Your task to perform on an android device: open app "Paramount+ | Peak Streaming" (install if not already installed) Image 0: 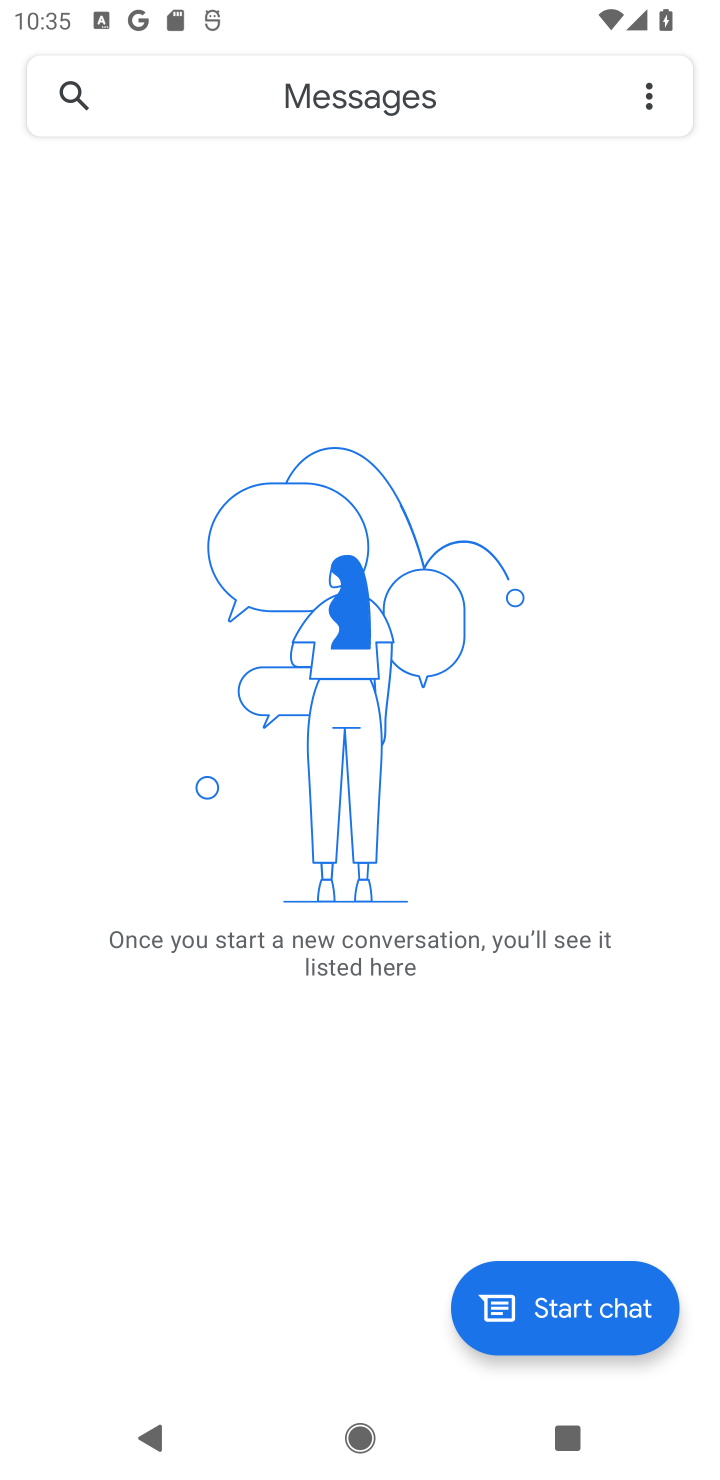
Step 0: drag from (569, 74) to (50, 80)
Your task to perform on an android device: open app "Paramount+ | Peak Streaming" (install if not already installed) Image 1: 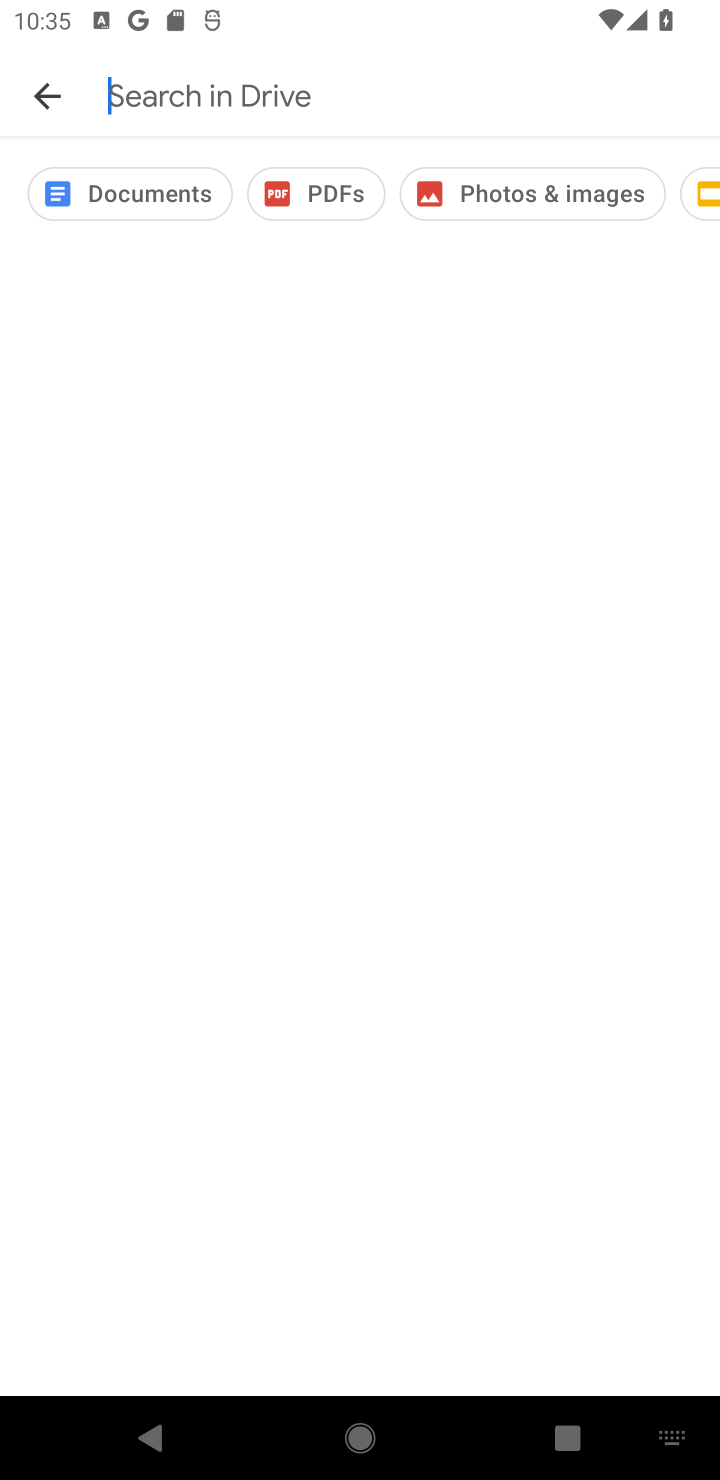
Step 1: press back button
Your task to perform on an android device: open app "Paramount+ | Peak Streaming" (install if not already installed) Image 2: 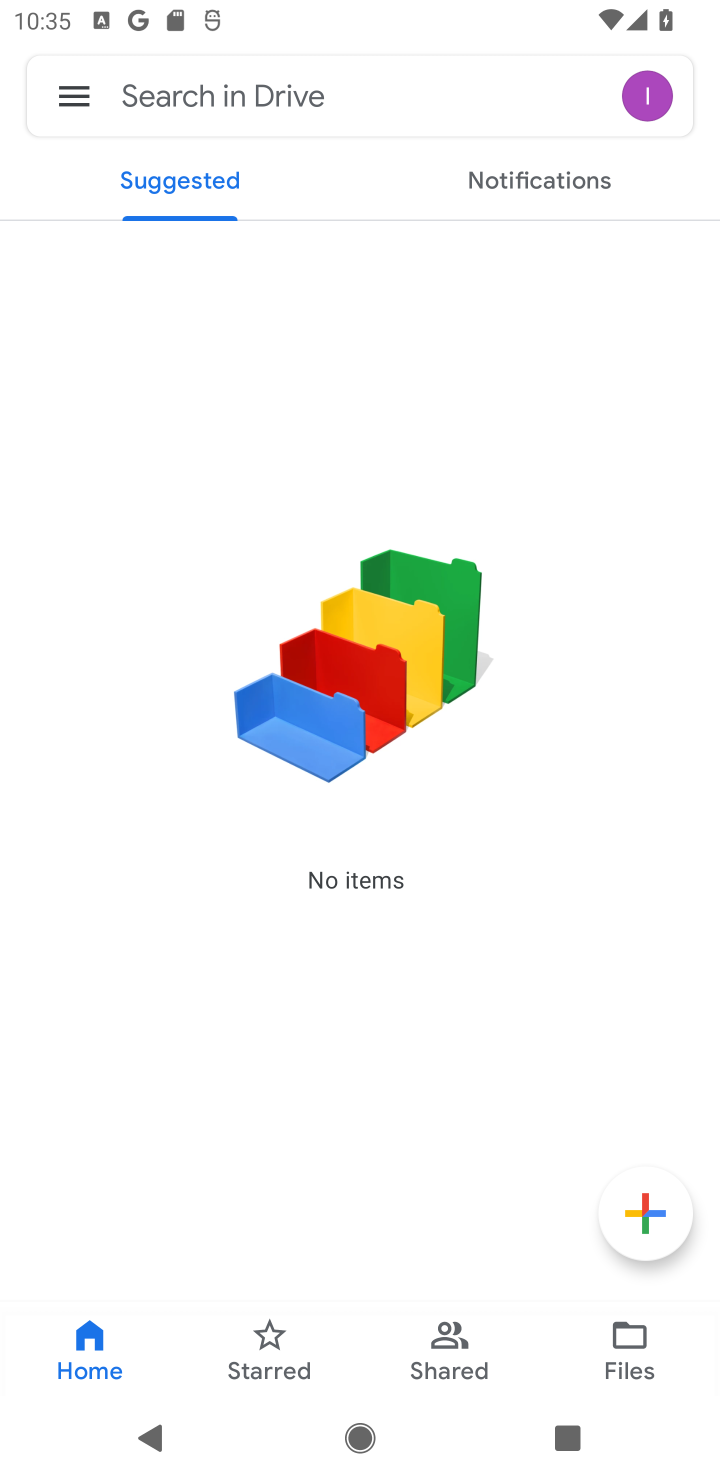
Step 2: press back button
Your task to perform on an android device: open app "Paramount+ | Peak Streaming" (install if not already installed) Image 3: 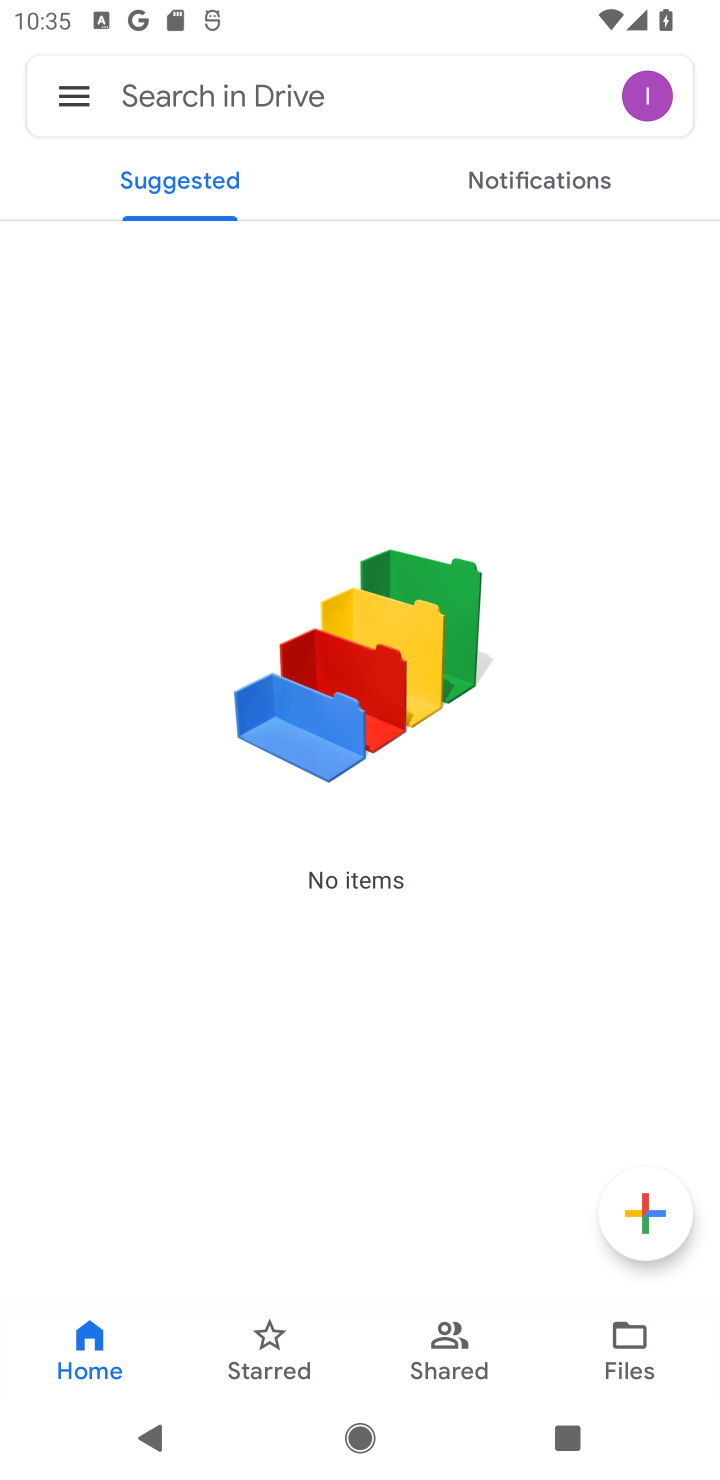
Step 3: press back button
Your task to perform on an android device: open app "Paramount+ | Peak Streaming" (install if not already installed) Image 4: 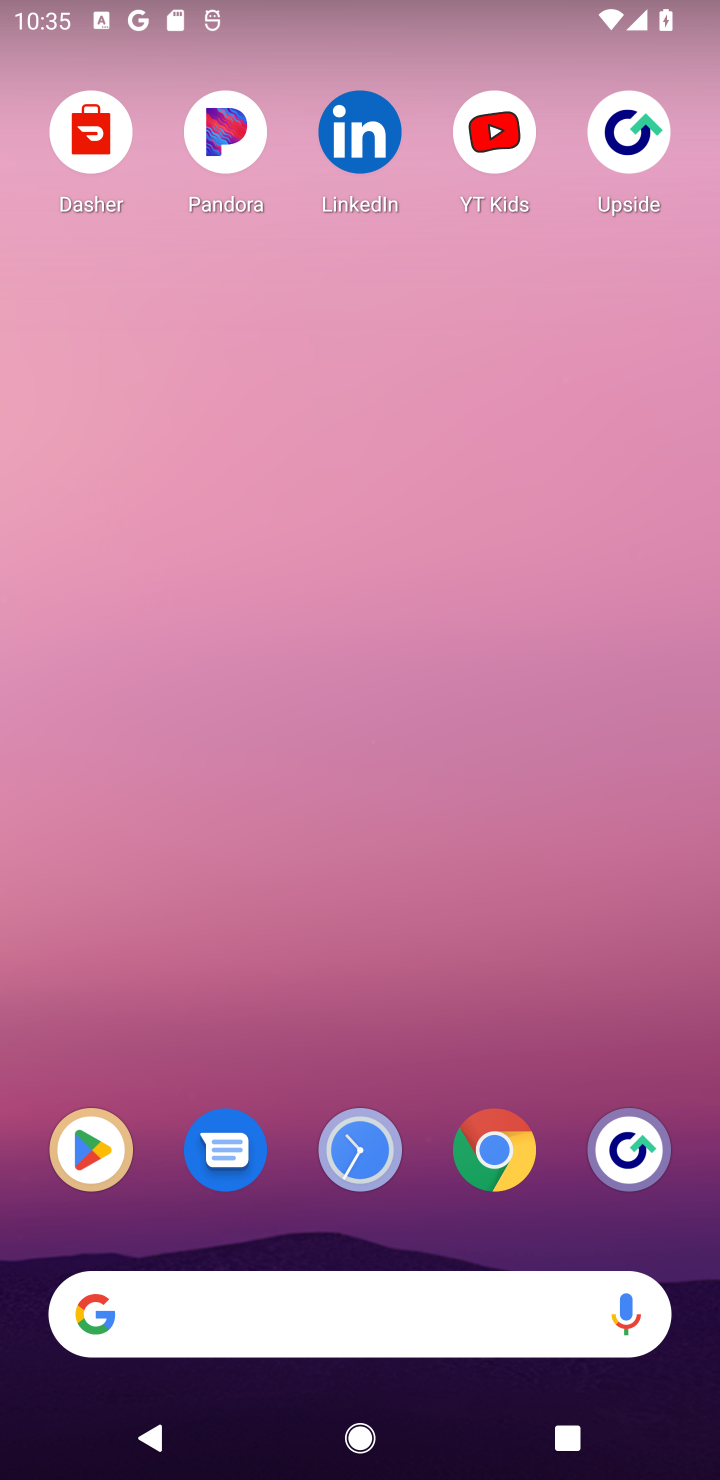
Step 4: click (106, 1134)
Your task to perform on an android device: open app "Paramount+ | Peak Streaming" (install if not already installed) Image 5: 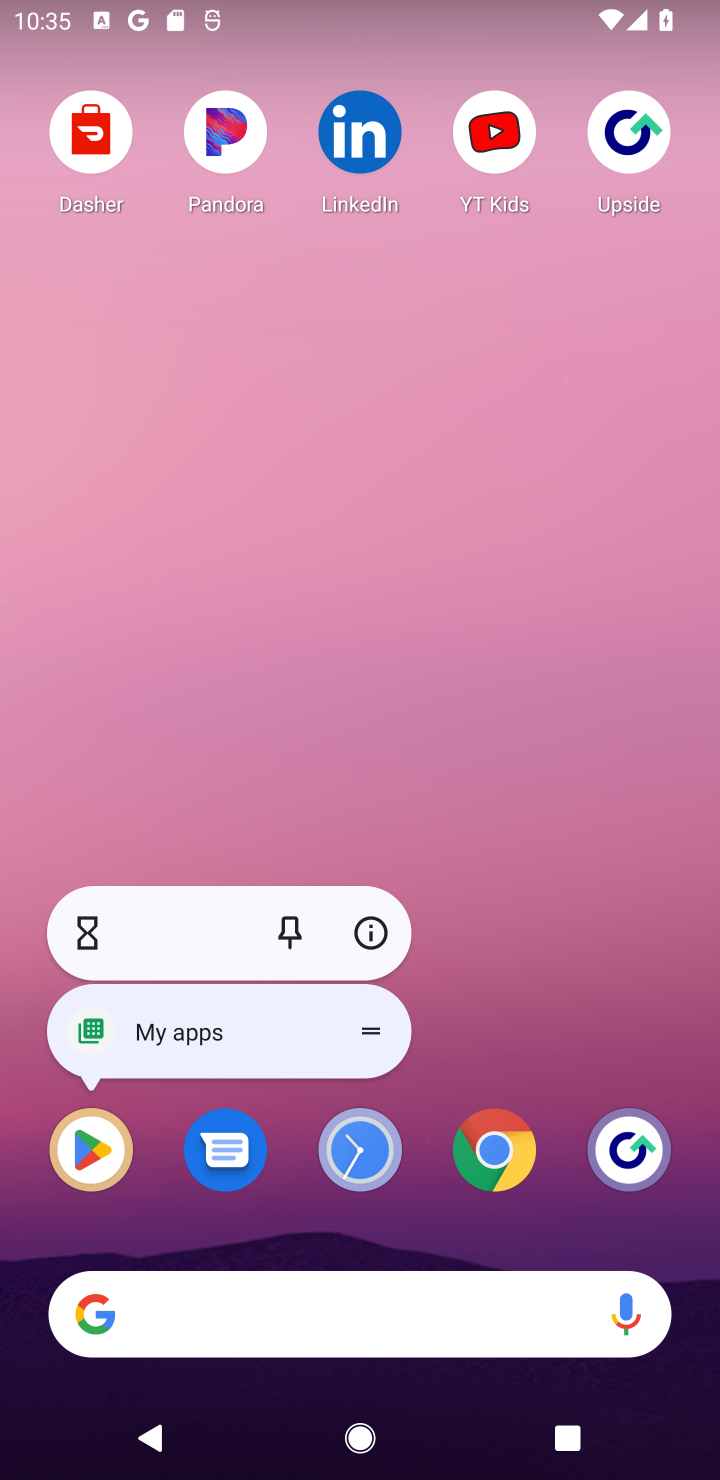
Step 5: click (100, 1135)
Your task to perform on an android device: open app "Paramount+ | Peak Streaming" (install if not already installed) Image 6: 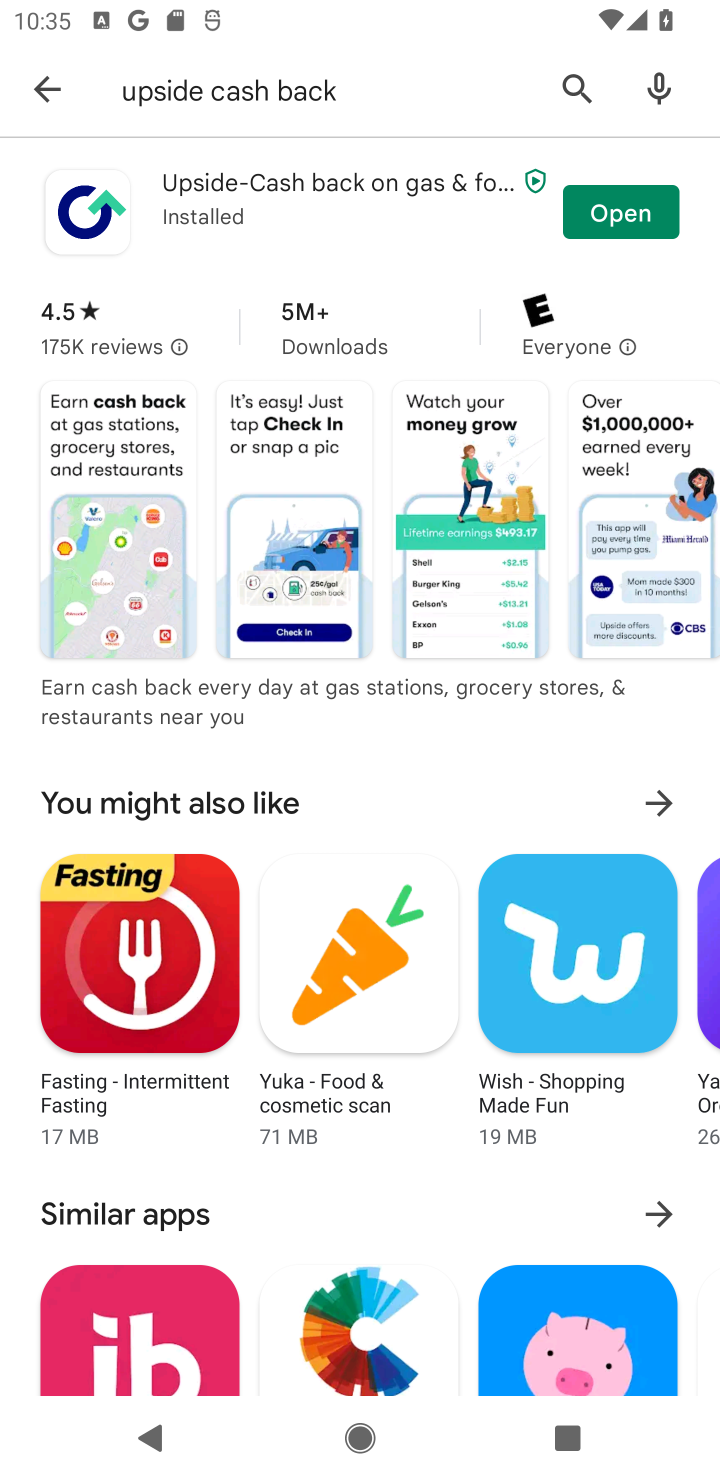
Step 6: click (593, 82)
Your task to perform on an android device: open app "Paramount+ | Peak Streaming" (install if not already installed) Image 7: 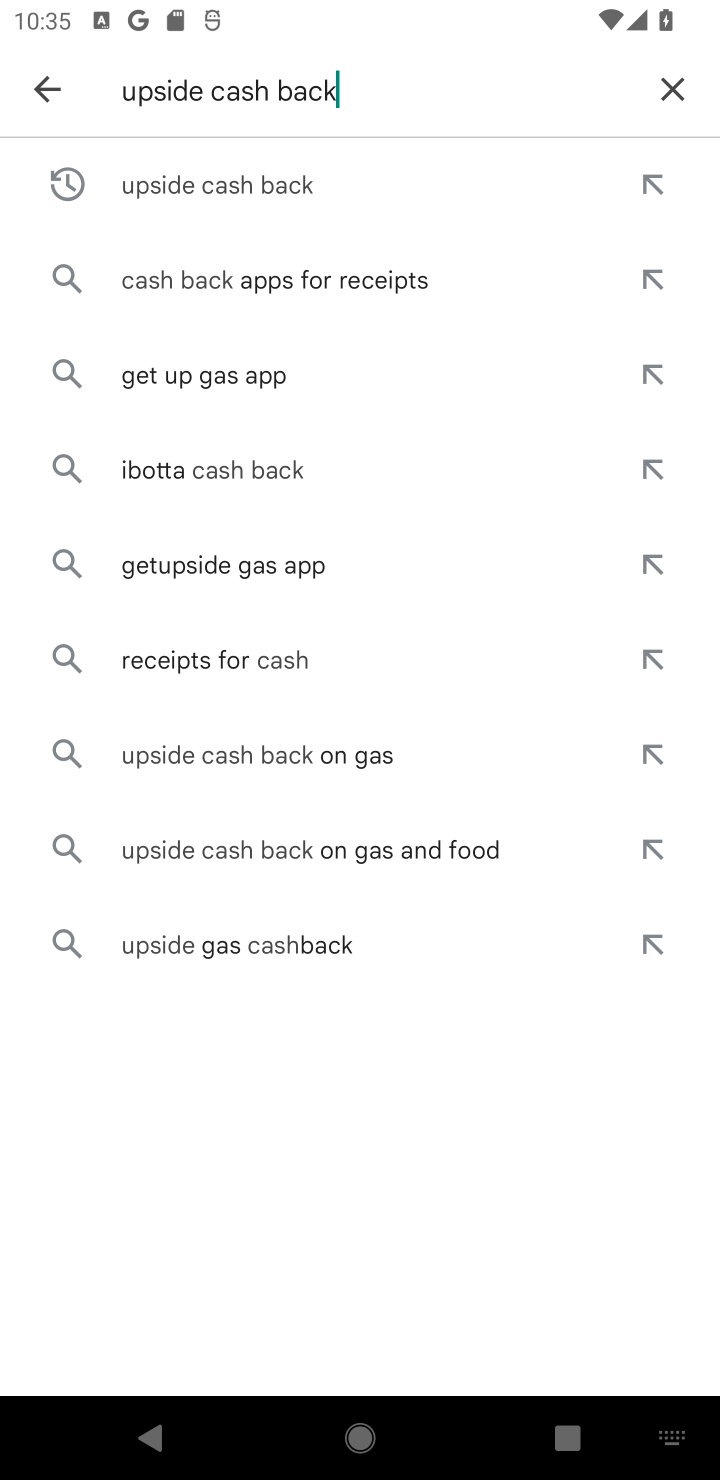
Step 7: click (681, 88)
Your task to perform on an android device: open app "Paramount+ | Peak Streaming" (install if not already installed) Image 8: 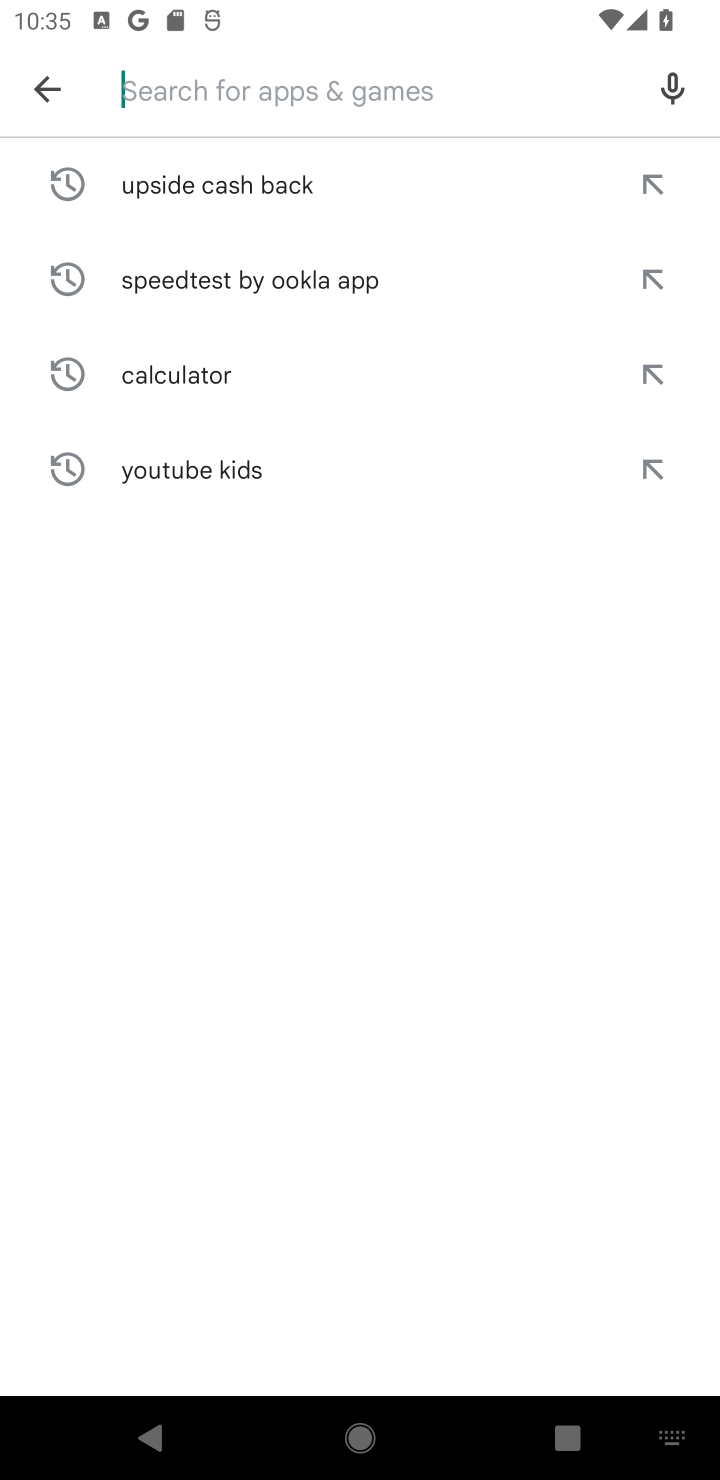
Step 8: click (261, 83)
Your task to perform on an android device: open app "Paramount+ | Peak Streaming" (install if not already installed) Image 9: 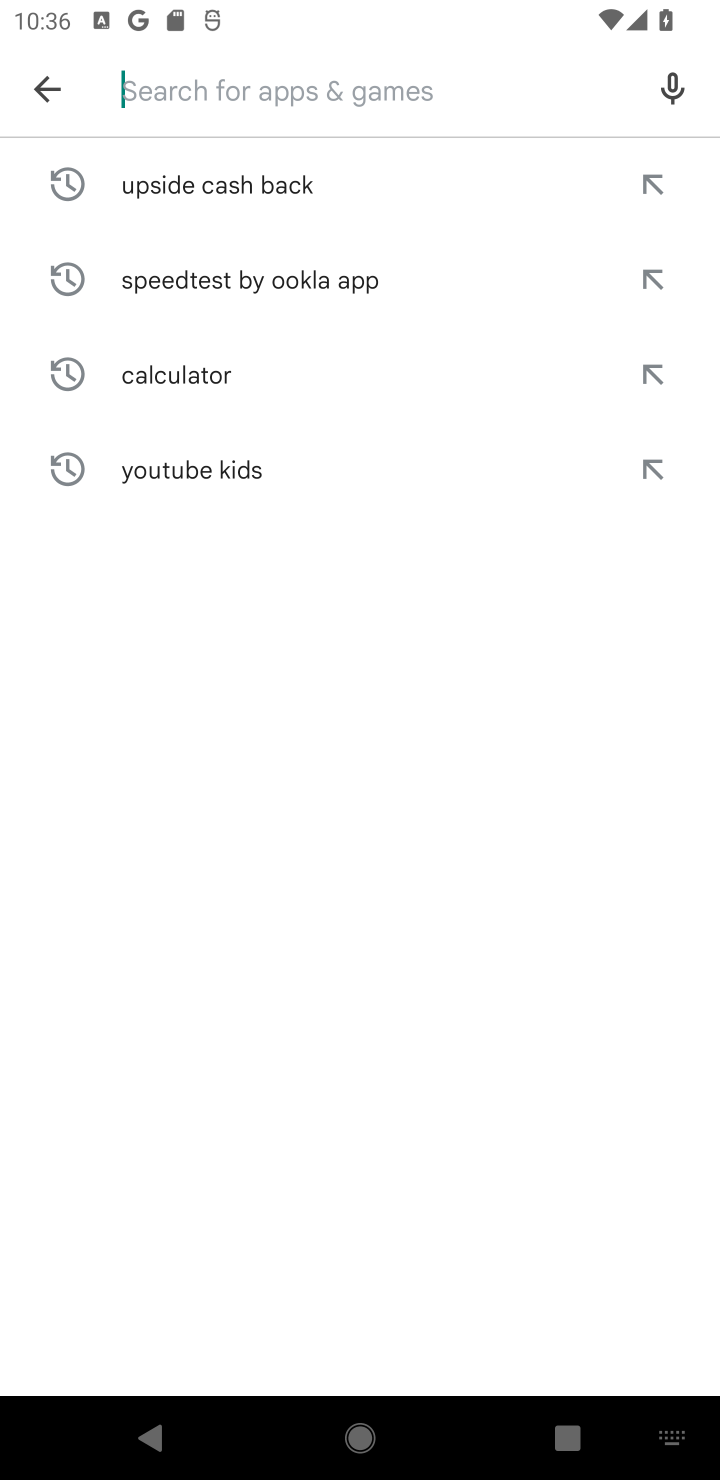
Step 9: type "paramount +"
Your task to perform on an android device: open app "Paramount+ | Peak Streaming" (install if not already installed) Image 10: 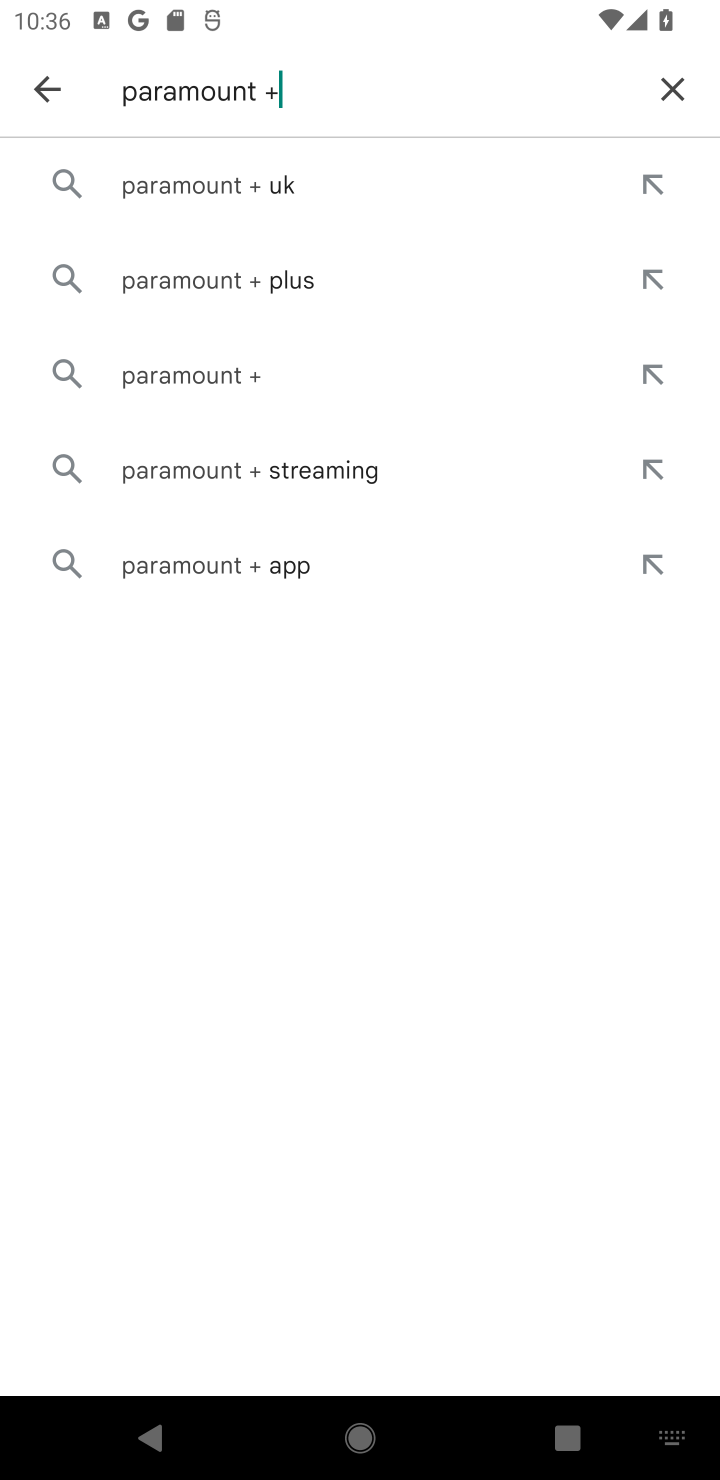
Step 10: click (241, 390)
Your task to perform on an android device: open app "Paramount+ | Peak Streaming" (install if not already installed) Image 11: 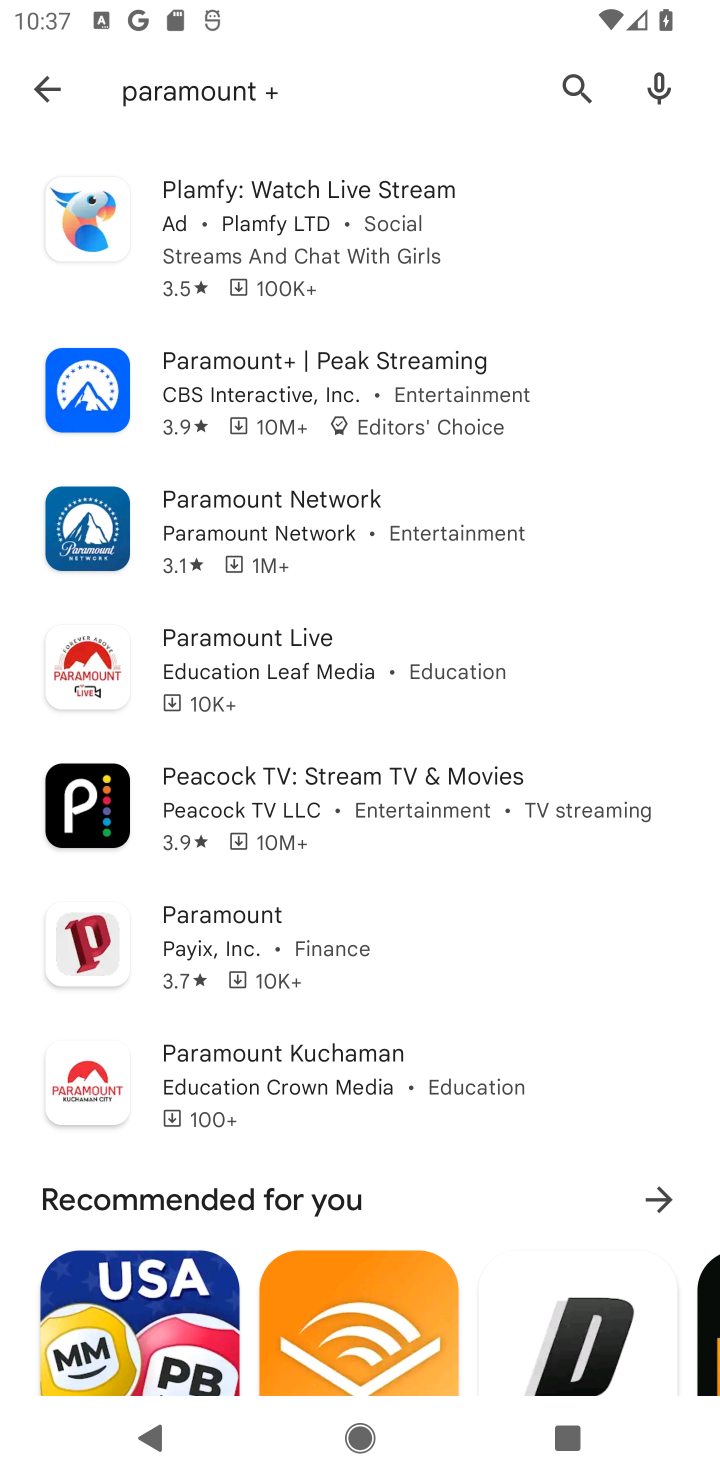
Step 11: task complete